Your task to perform on an android device: Go to Google maps Image 0: 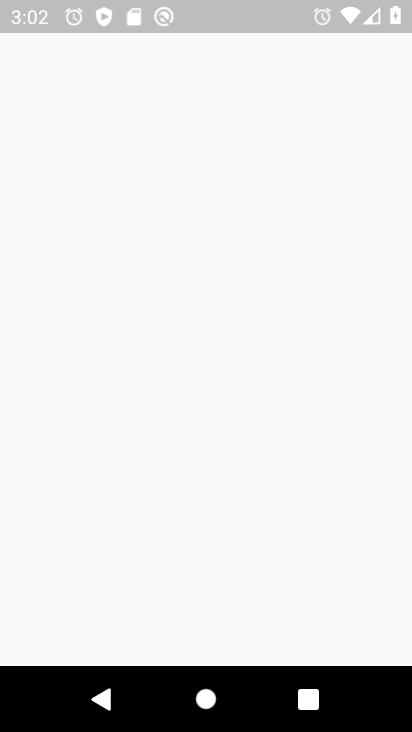
Step 0: press home button
Your task to perform on an android device: Go to Google maps Image 1: 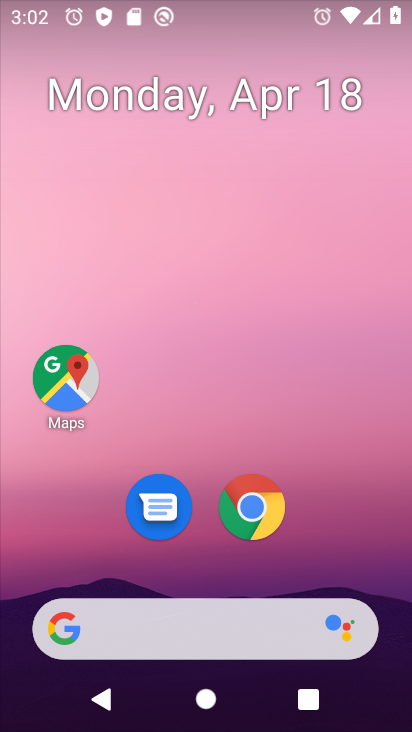
Step 1: click (65, 386)
Your task to perform on an android device: Go to Google maps Image 2: 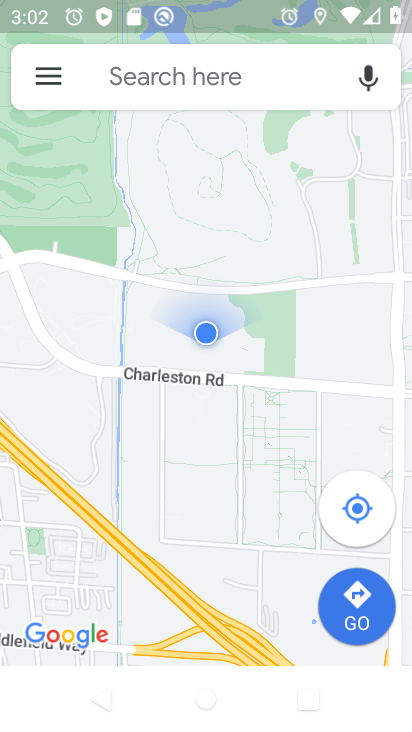
Step 2: task complete